Your task to perform on an android device: Open internet settings Image 0: 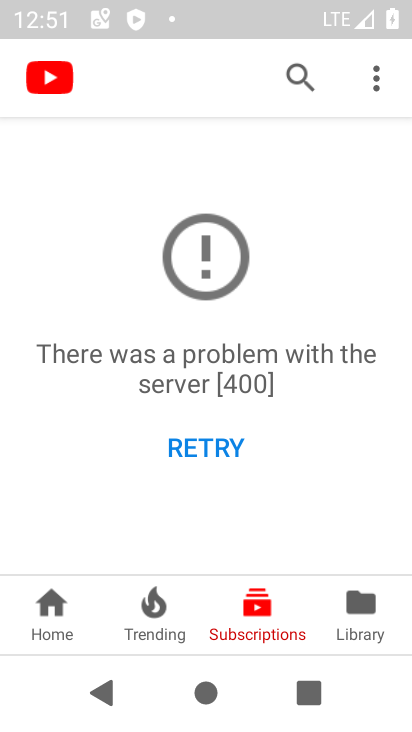
Step 0: press home button
Your task to perform on an android device: Open internet settings Image 1: 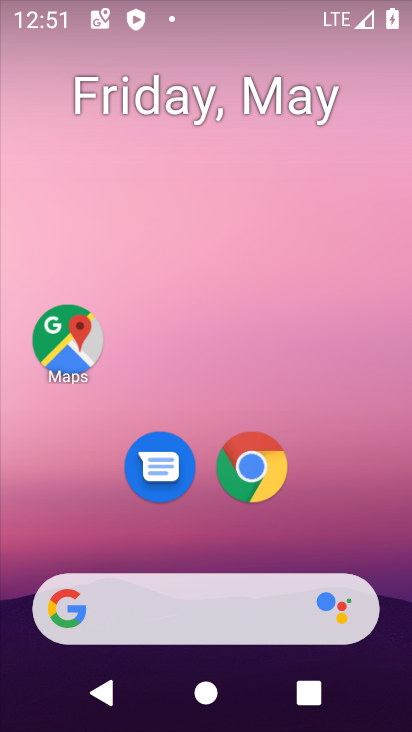
Step 1: drag from (332, 506) to (292, 143)
Your task to perform on an android device: Open internet settings Image 2: 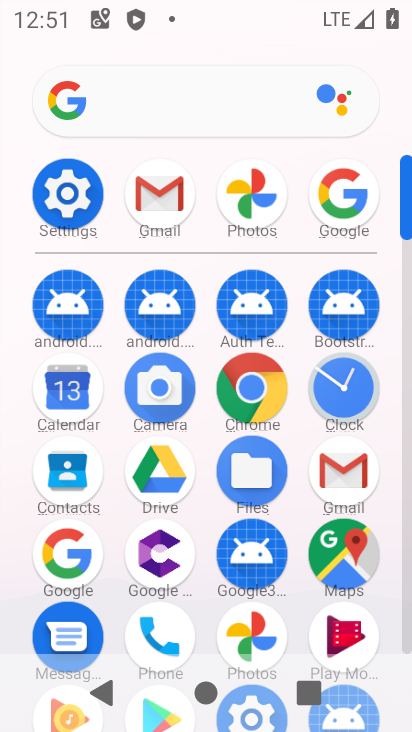
Step 2: drag from (391, 611) to (307, 275)
Your task to perform on an android device: Open internet settings Image 3: 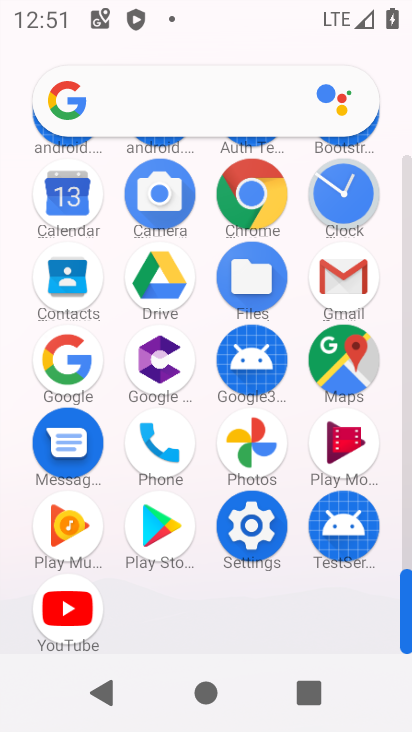
Step 3: click (254, 521)
Your task to perform on an android device: Open internet settings Image 4: 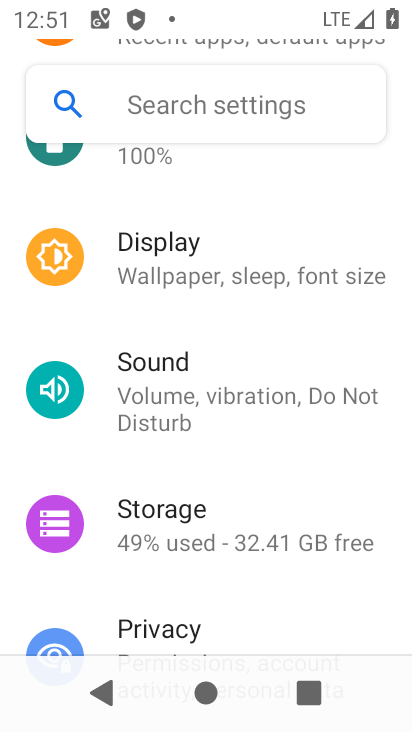
Step 4: drag from (261, 302) to (243, 423)
Your task to perform on an android device: Open internet settings Image 5: 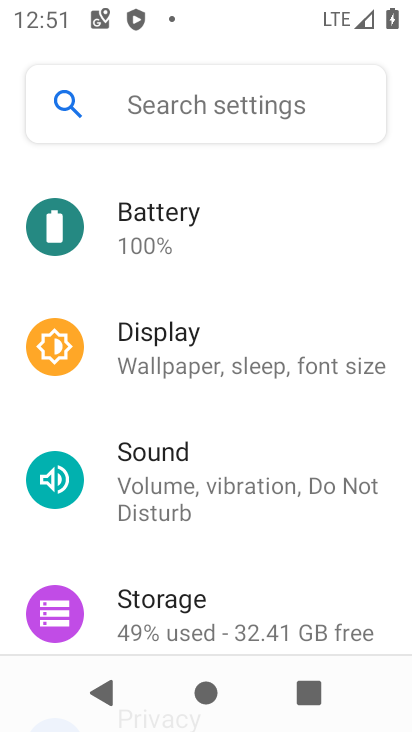
Step 5: drag from (256, 297) to (273, 394)
Your task to perform on an android device: Open internet settings Image 6: 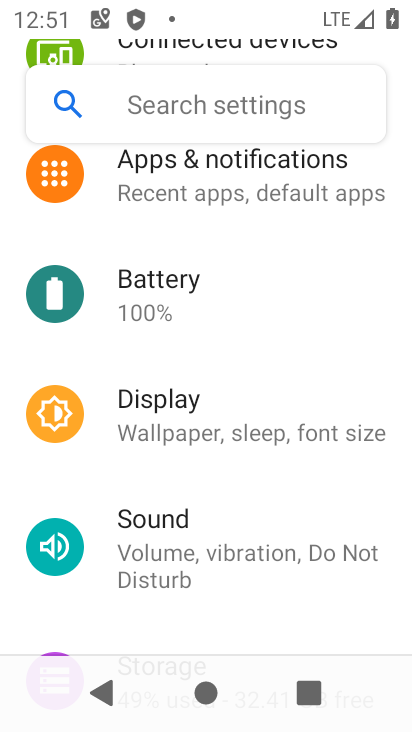
Step 6: drag from (251, 354) to (267, 489)
Your task to perform on an android device: Open internet settings Image 7: 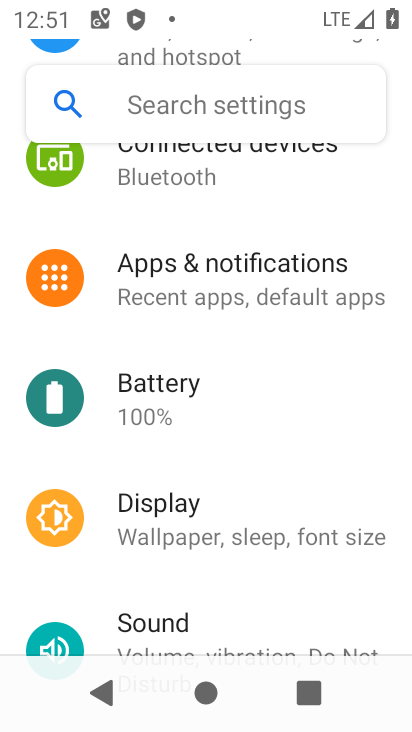
Step 7: drag from (256, 214) to (239, 518)
Your task to perform on an android device: Open internet settings Image 8: 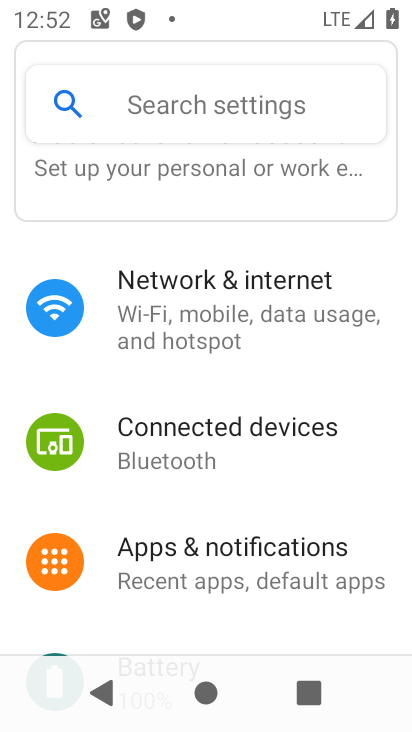
Step 8: click (219, 308)
Your task to perform on an android device: Open internet settings Image 9: 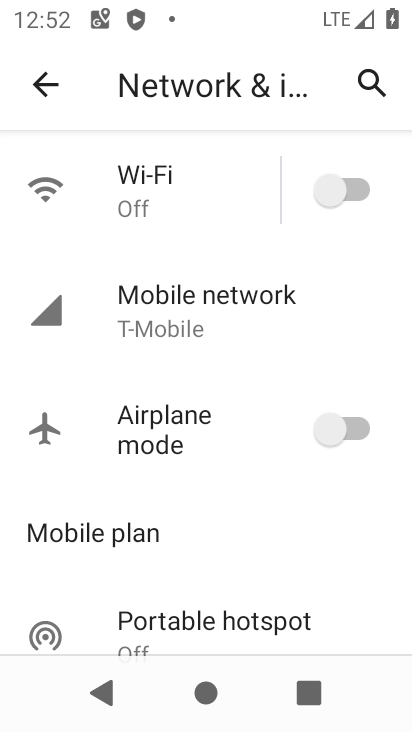
Step 9: task complete